Your task to perform on an android device: What's on my calendar today? Image 0: 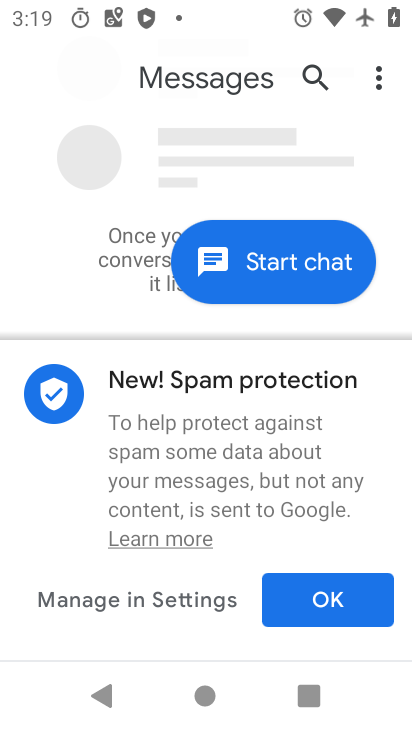
Step 0: press home button
Your task to perform on an android device: What's on my calendar today? Image 1: 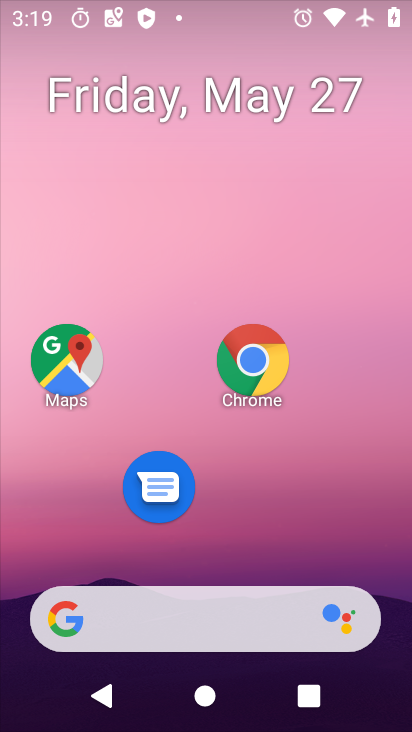
Step 1: drag from (253, 522) to (264, 64)
Your task to perform on an android device: What's on my calendar today? Image 2: 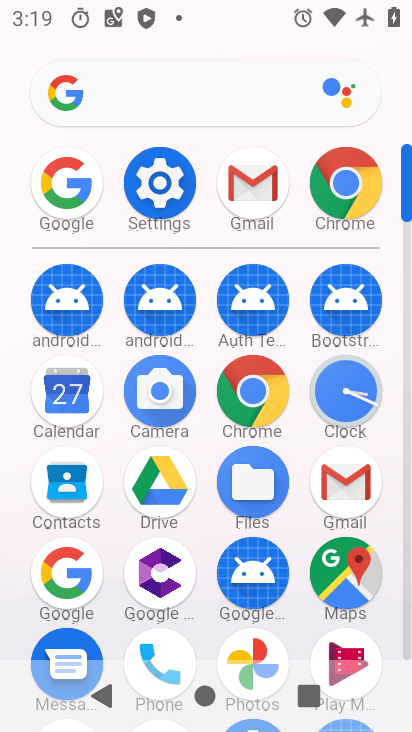
Step 2: click (76, 406)
Your task to perform on an android device: What's on my calendar today? Image 3: 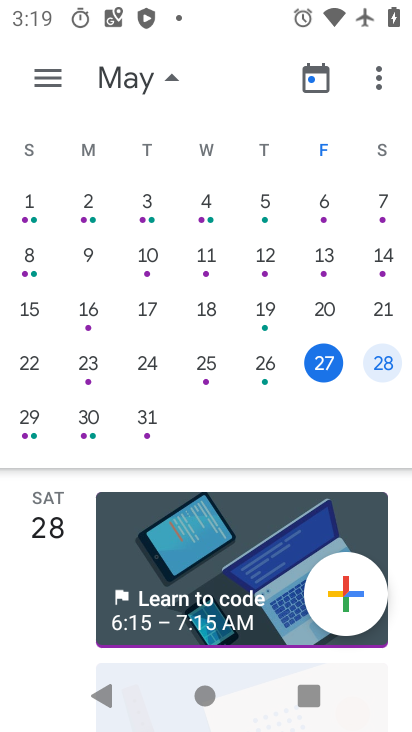
Step 3: click (322, 360)
Your task to perform on an android device: What's on my calendar today? Image 4: 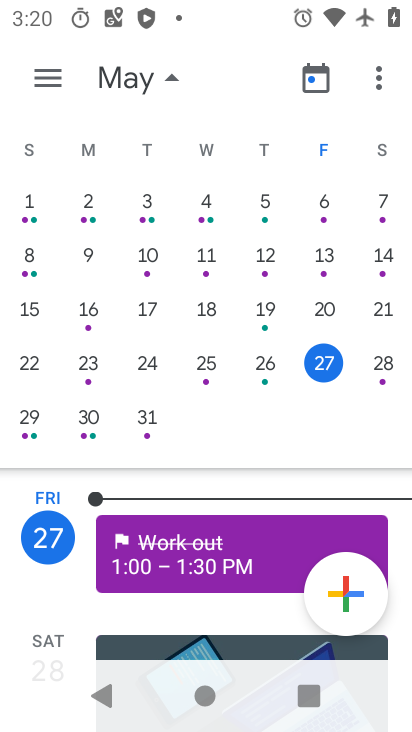
Step 4: task complete